Your task to perform on an android device: turn vacation reply on in the gmail app Image 0: 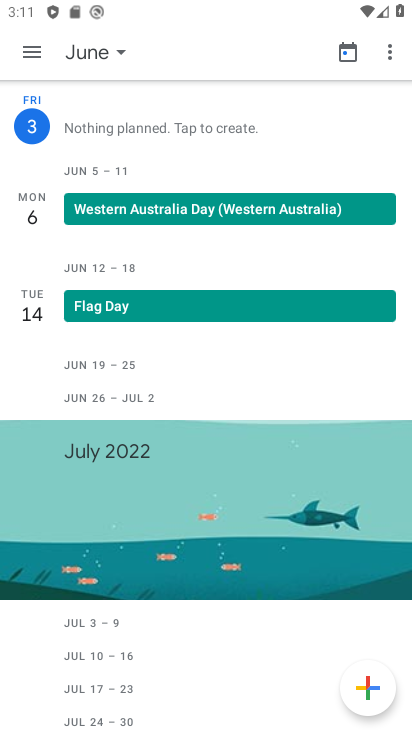
Step 0: press home button
Your task to perform on an android device: turn vacation reply on in the gmail app Image 1: 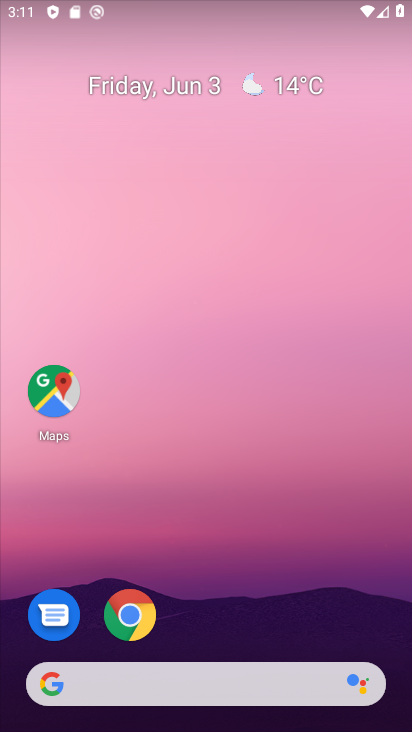
Step 1: drag from (127, 706) to (175, 101)
Your task to perform on an android device: turn vacation reply on in the gmail app Image 2: 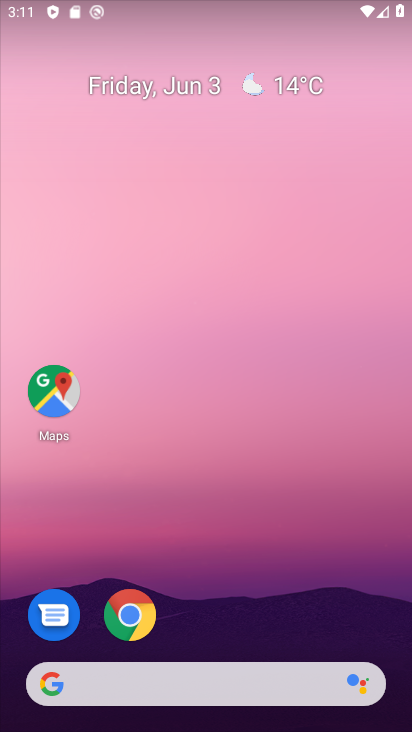
Step 2: drag from (113, 708) to (130, 58)
Your task to perform on an android device: turn vacation reply on in the gmail app Image 3: 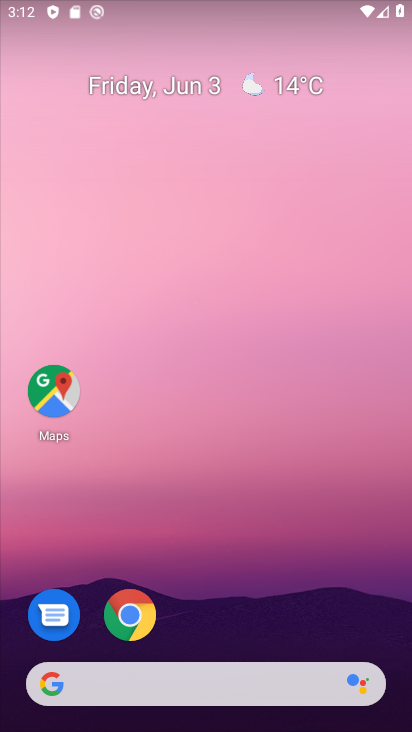
Step 3: drag from (115, 729) to (135, 76)
Your task to perform on an android device: turn vacation reply on in the gmail app Image 4: 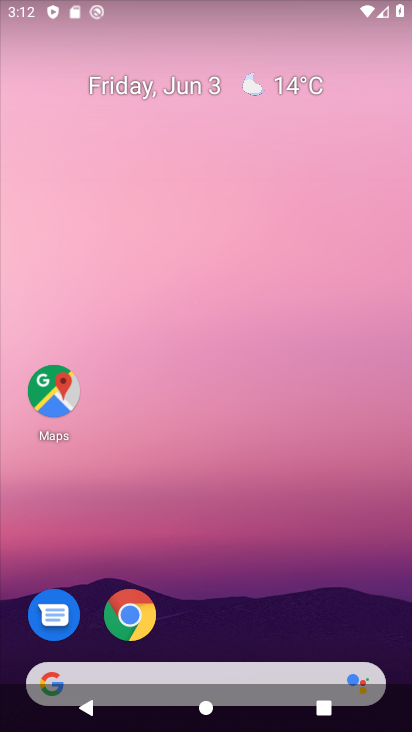
Step 4: drag from (160, 731) to (189, 24)
Your task to perform on an android device: turn vacation reply on in the gmail app Image 5: 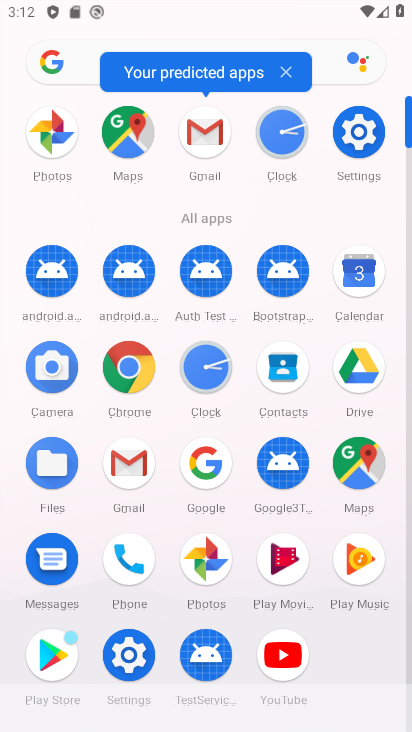
Step 5: click (126, 480)
Your task to perform on an android device: turn vacation reply on in the gmail app Image 6: 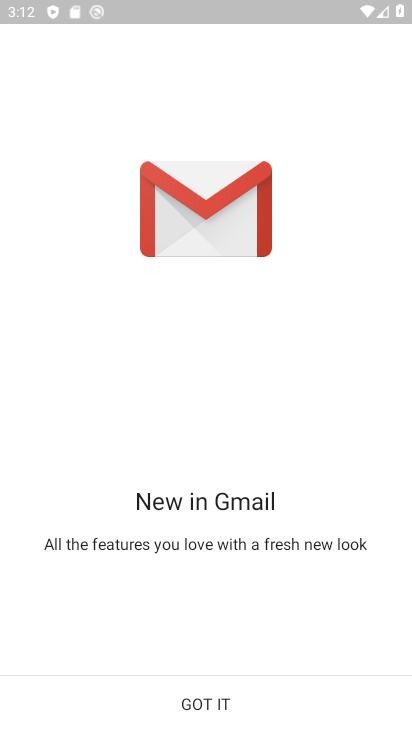
Step 6: click (211, 708)
Your task to perform on an android device: turn vacation reply on in the gmail app Image 7: 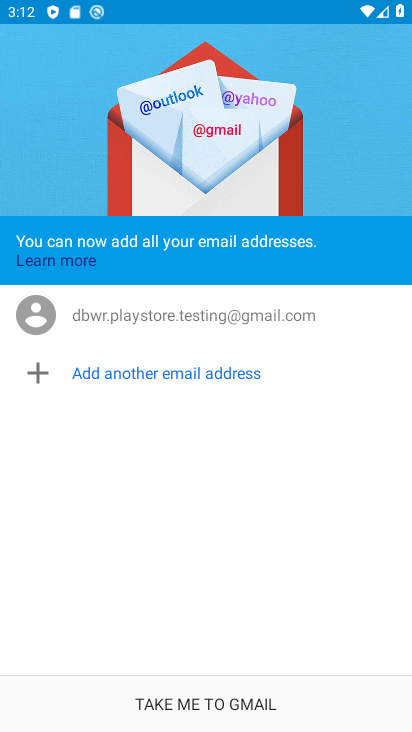
Step 7: click (215, 704)
Your task to perform on an android device: turn vacation reply on in the gmail app Image 8: 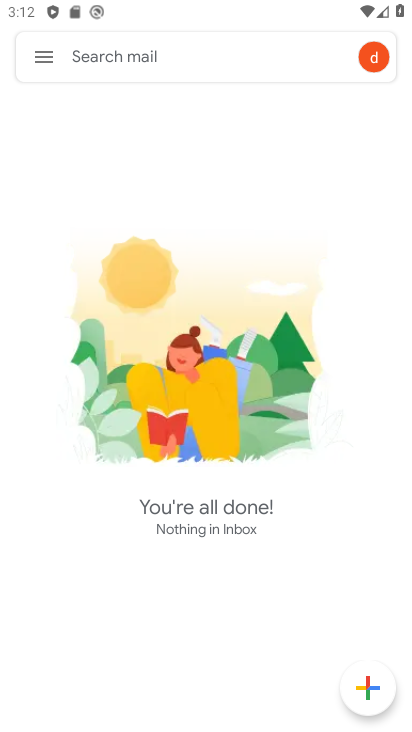
Step 8: click (50, 64)
Your task to perform on an android device: turn vacation reply on in the gmail app Image 9: 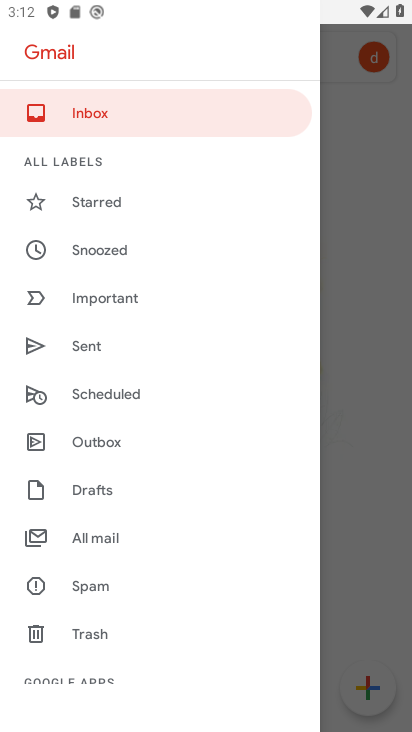
Step 9: drag from (166, 647) to (165, 357)
Your task to perform on an android device: turn vacation reply on in the gmail app Image 10: 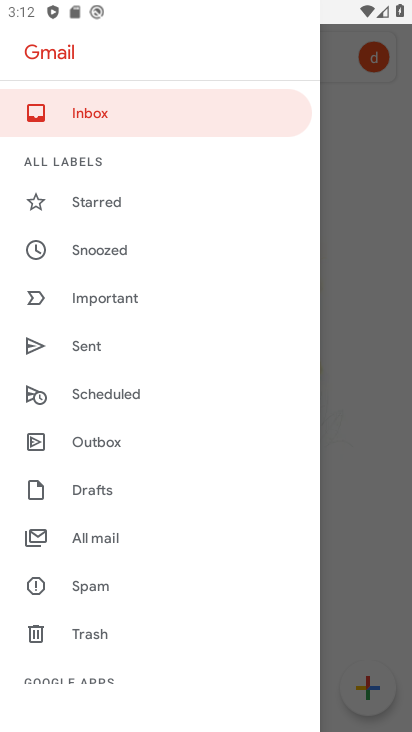
Step 10: drag from (126, 660) to (142, 239)
Your task to perform on an android device: turn vacation reply on in the gmail app Image 11: 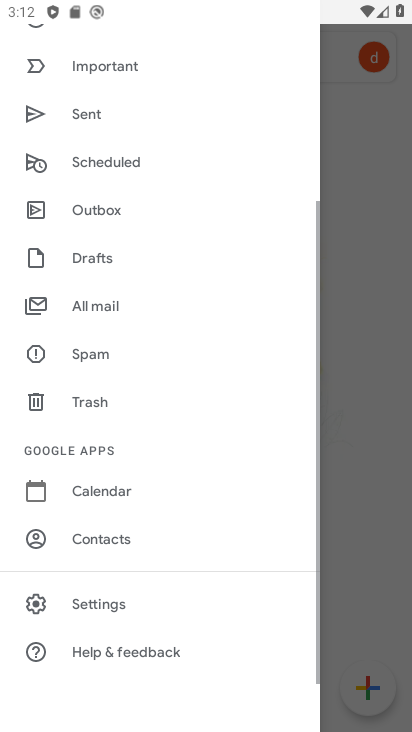
Step 11: click (89, 599)
Your task to perform on an android device: turn vacation reply on in the gmail app Image 12: 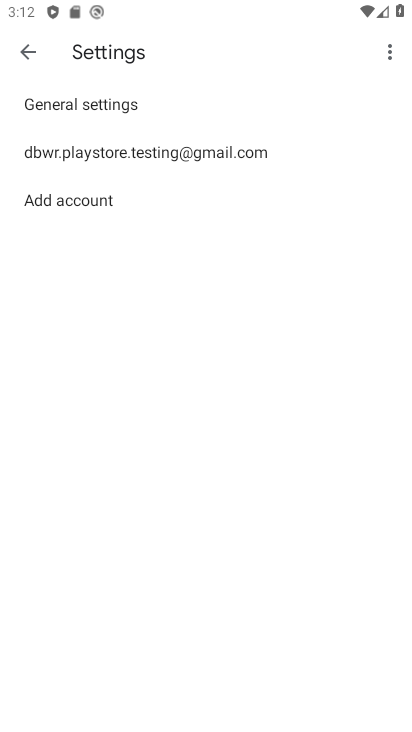
Step 12: click (126, 155)
Your task to perform on an android device: turn vacation reply on in the gmail app Image 13: 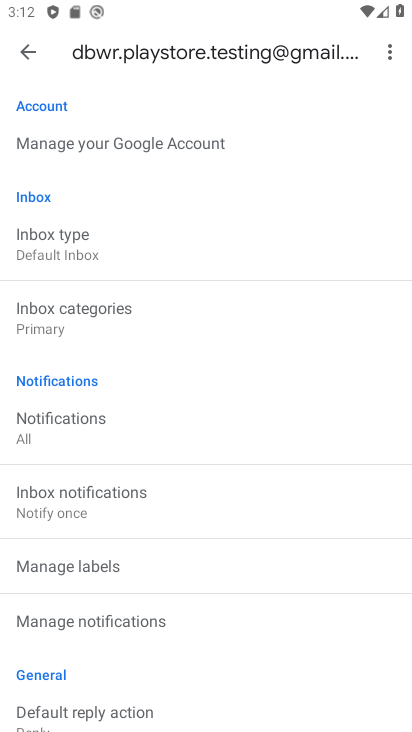
Step 13: drag from (132, 656) to (132, 193)
Your task to perform on an android device: turn vacation reply on in the gmail app Image 14: 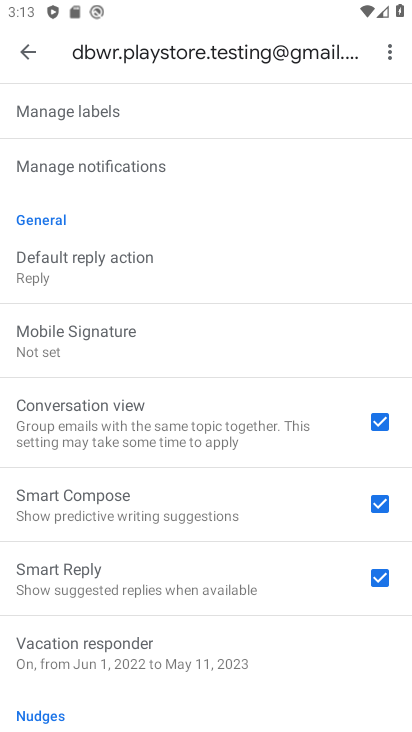
Step 14: click (124, 667)
Your task to perform on an android device: turn vacation reply on in the gmail app Image 15: 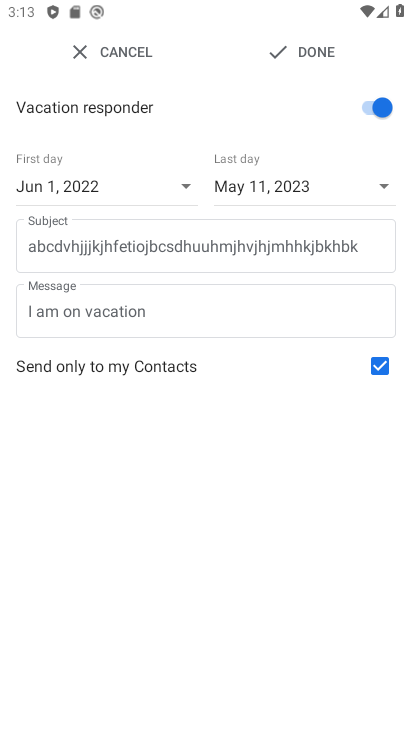
Step 15: task complete